Your task to perform on an android device: turn on sleep mode Image 0: 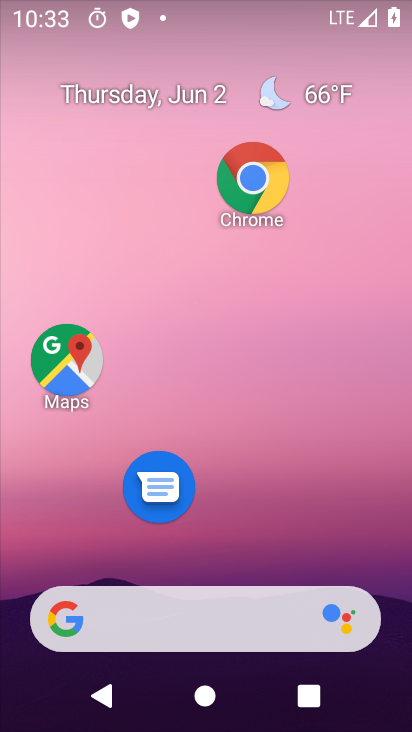
Step 0: drag from (231, 724) to (234, 104)
Your task to perform on an android device: turn on sleep mode Image 1: 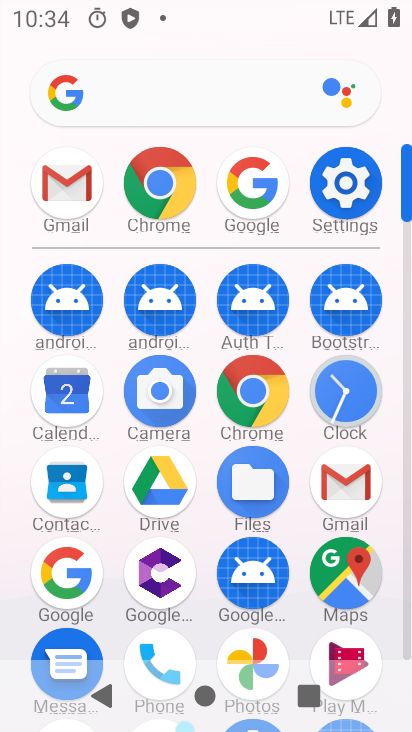
Step 1: click (338, 189)
Your task to perform on an android device: turn on sleep mode Image 2: 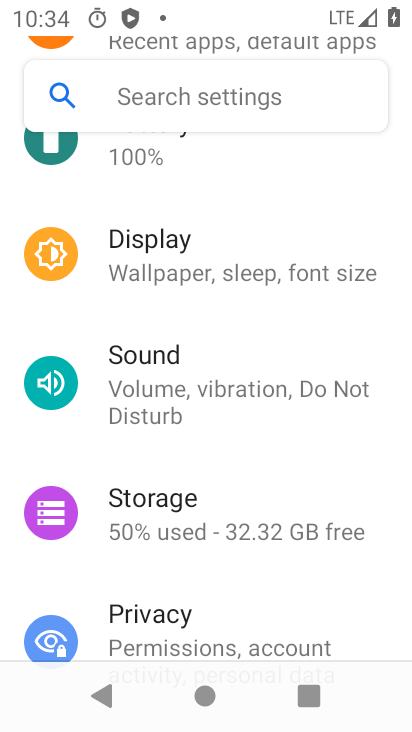
Step 2: task complete